Your task to perform on an android device: open app "Upside-Cash back on gas & food" (install if not already installed) Image 0: 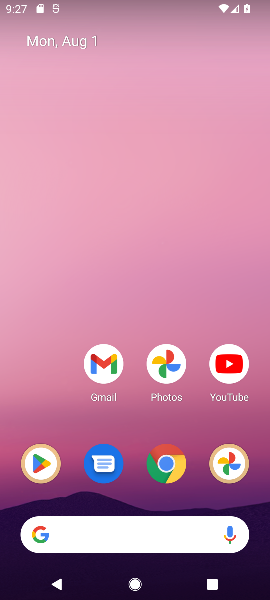
Step 0: click (32, 473)
Your task to perform on an android device: open app "Upside-Cash back on gas & food" (install if not already installed) Image 1: 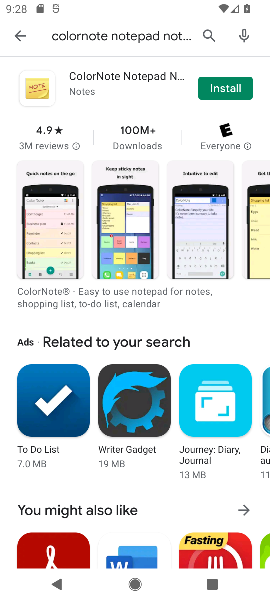
Step 1: click (210, 39)
Your task to perform on an android device: open app "Upside-Cash back on gas & food" (install if not already installed) Image 2: 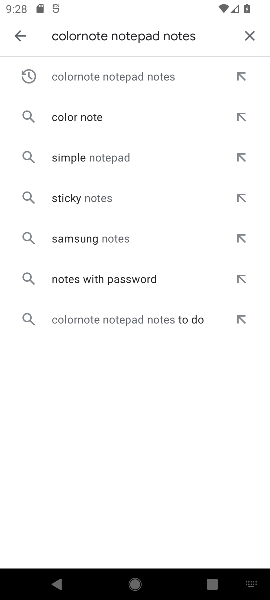
Step 2: click (251, 33)
Your task to perform on an android device: open app "Upside-Cash back on gas & food" (install if not already installed) Image 3: 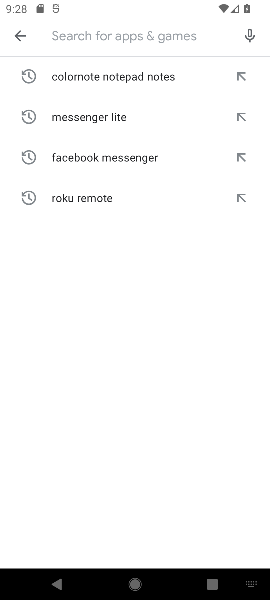
Step 3: click (106, 38)
Your task to perform on an android device: open app "Upside-Cash back on gas & food" (install if not already installed) Image 4: 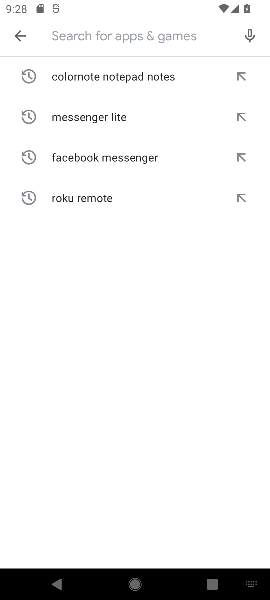
Step 4: type "upside cash"
Your task to perform on an android device: open app "Upside-Cash back on gas & food" (install if not already installed) Image 5: 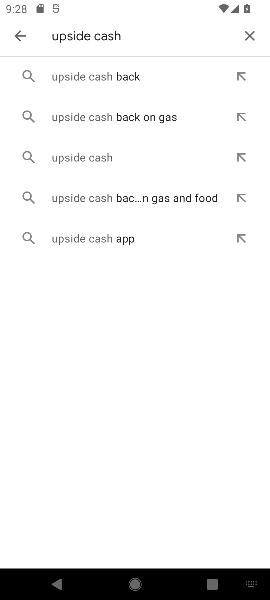
Step 5: click (173, 206)
Your task to perform on an android device: open app "Upside-Cash back on gas & food" (install if not already installed) Image 6: 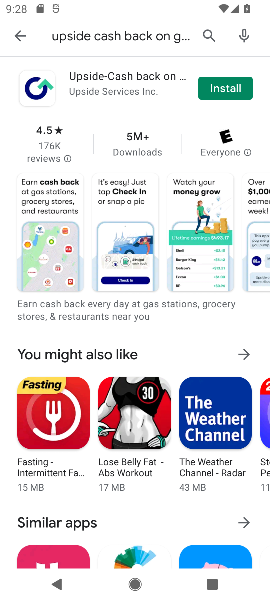
Step 6: click (225, 87)
Your task to perform on an android device: open app "Upside-Cash back on gas & food" (install if not already installed) Image 7: 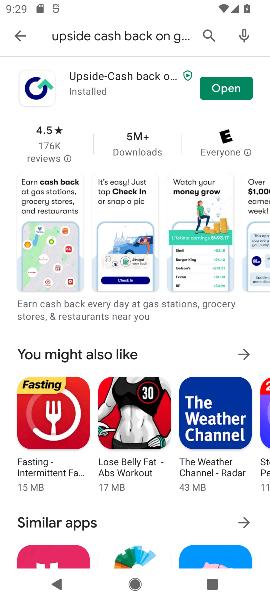
Step 7: click (228, 87)
Your task to perform on an android device: open app "Upside-Cash back on gas & food" (install if not already installed) Image 8: 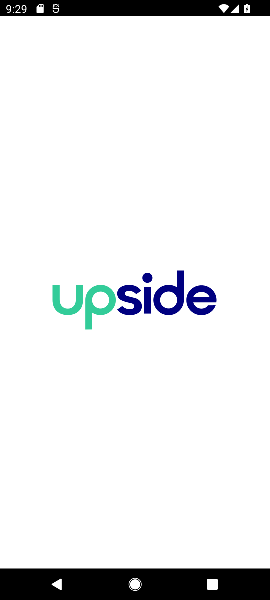
Step 8: task complete